Your task to perform on an android device: Go to Yahoo.com Image 0: 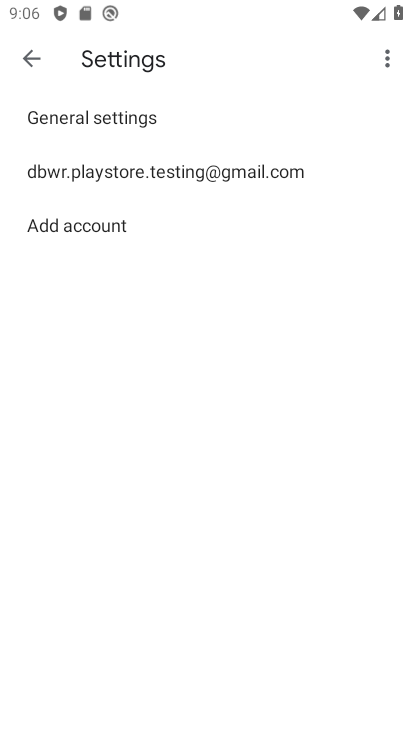
Step 0: press home button
Your task to perform on an android device: Go to Yahoo.com Image 1: 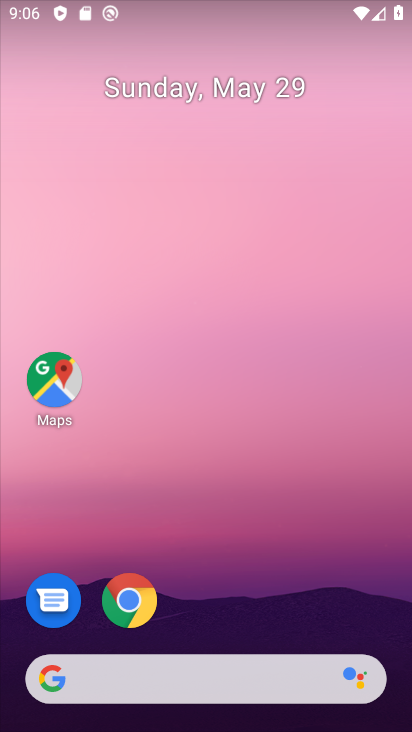
Step 1: drag from (212, 615) to (252, 67)
Your task to perform on an android device: Go to Yahoo.com Image 2: 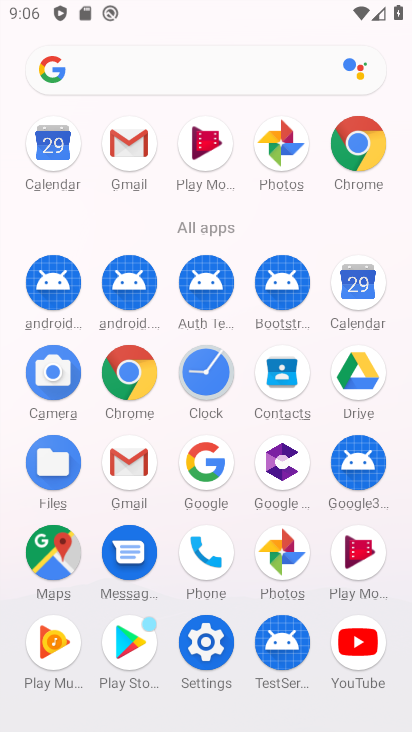
Step 2: click (114, 359)
Your task to perform on an android device: Go to Yahoo.com Image 3: 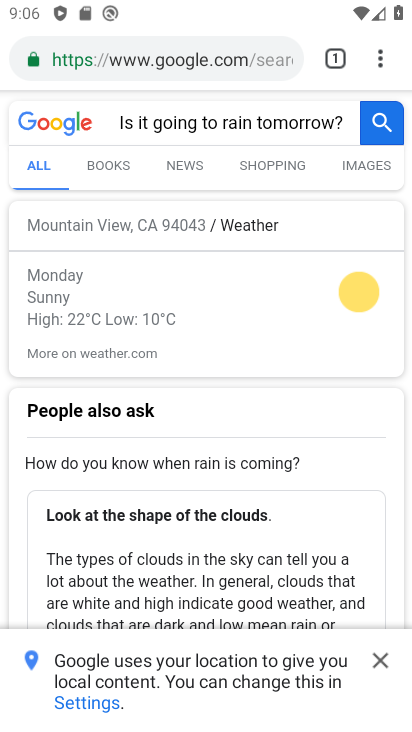
Step 3: click (249, 58)
Your task to perform on an android device: Go to Yahoo.com Image 4: 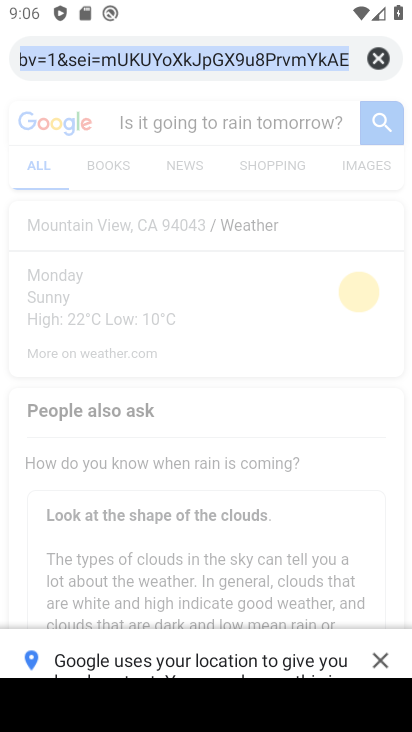
Step 4: click (382, 55)
Your task to perform on an android device: Go to Yahoo.com Image 5: 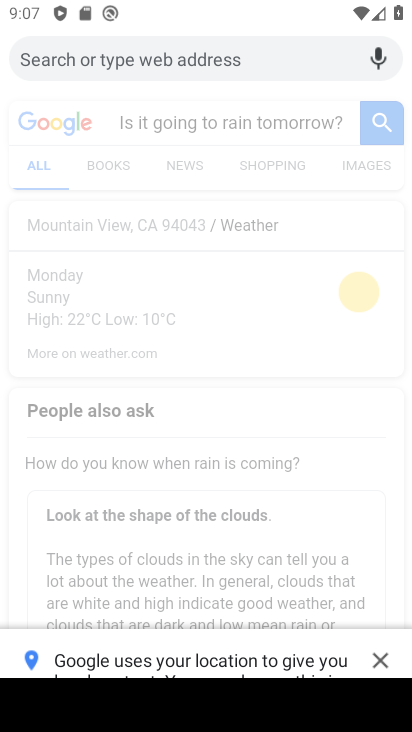
Step 5: type "Yahoo.com"
Your task to perform on an android device: Go to Yahoo.com Image 6: 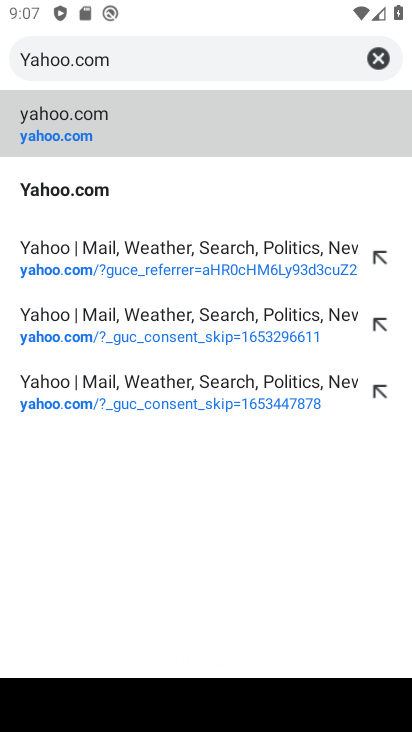
Step 6: click (81, 132)
Your task to perform on an android device: Go to Yahoo.com Image 7: 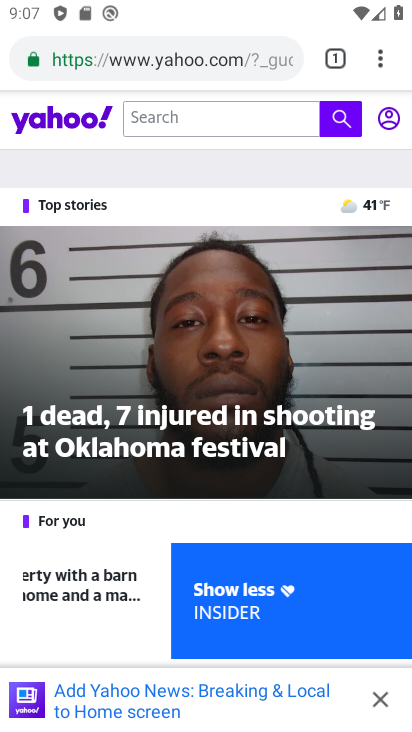
Step 7: task complete